Your task to perform on an android device: Open Google Image 0: 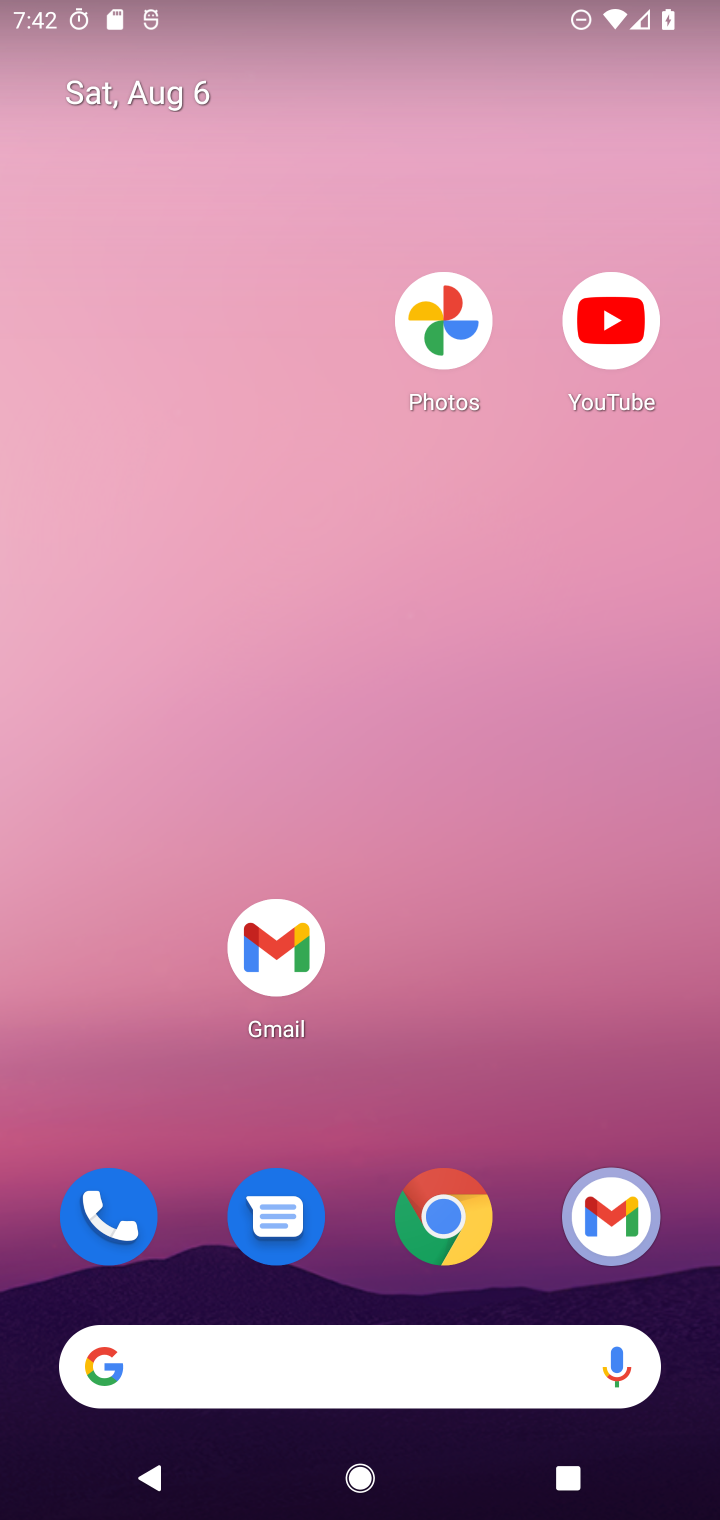
Step 0: drag from (543, 1258) to (585, 72)
Your task to perform on an android device: Open Google Image 1: 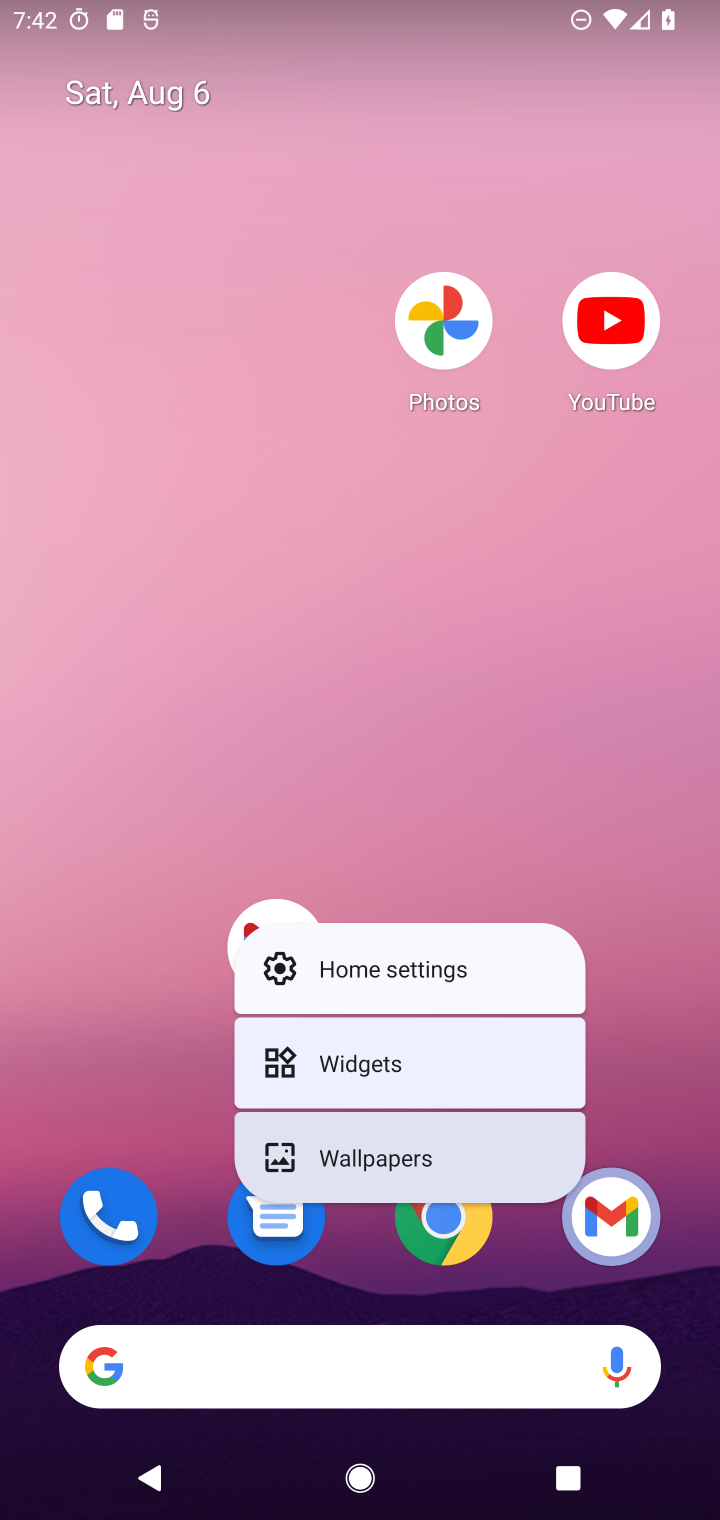
Step 1: click (459, 588)
Your task to perform on an android device: Open Google Image 2: 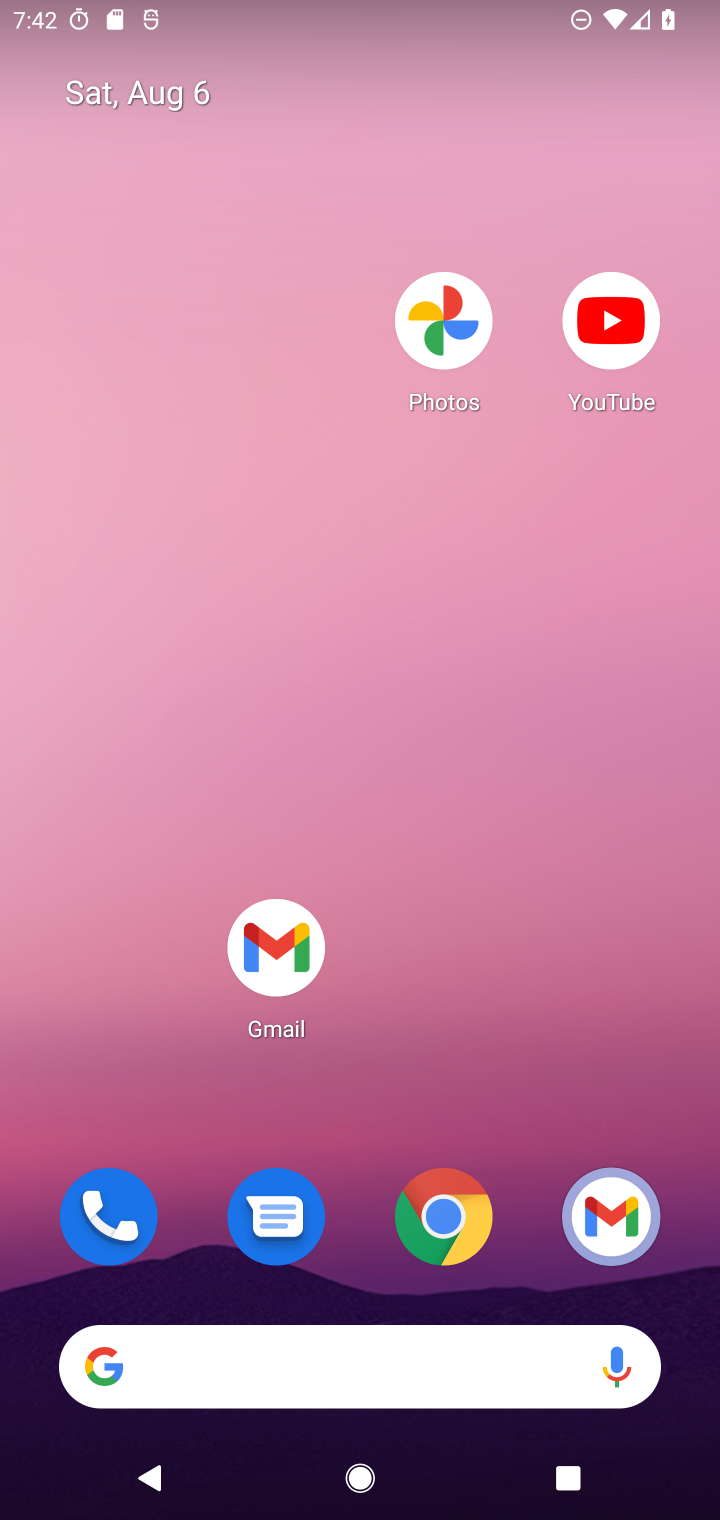
Step 2: drag from (606, 1067) to (550, 153)
Your task to perform on an android device: Open Google Image 3: 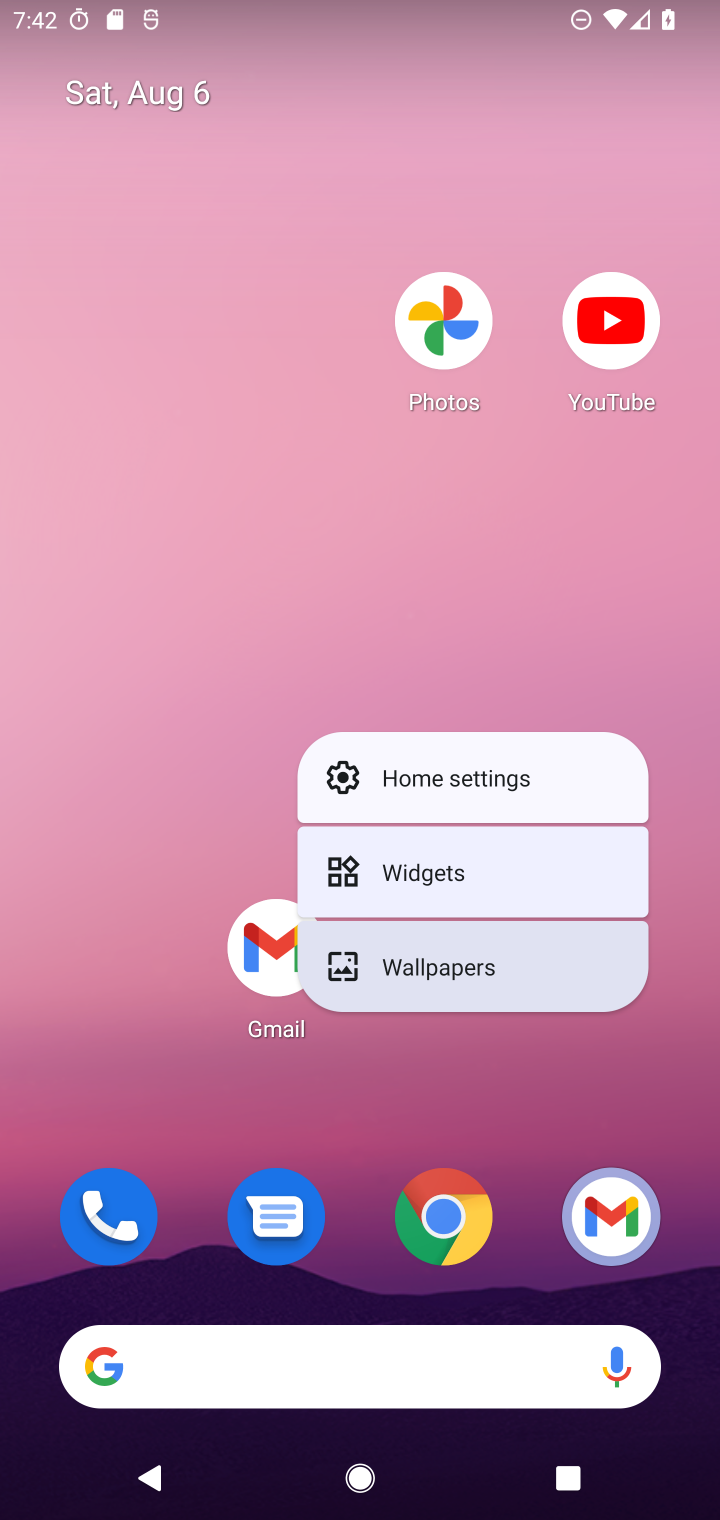
Step 3: click (149, 307)
Your task to perform on an android device: Open Google Image 4: 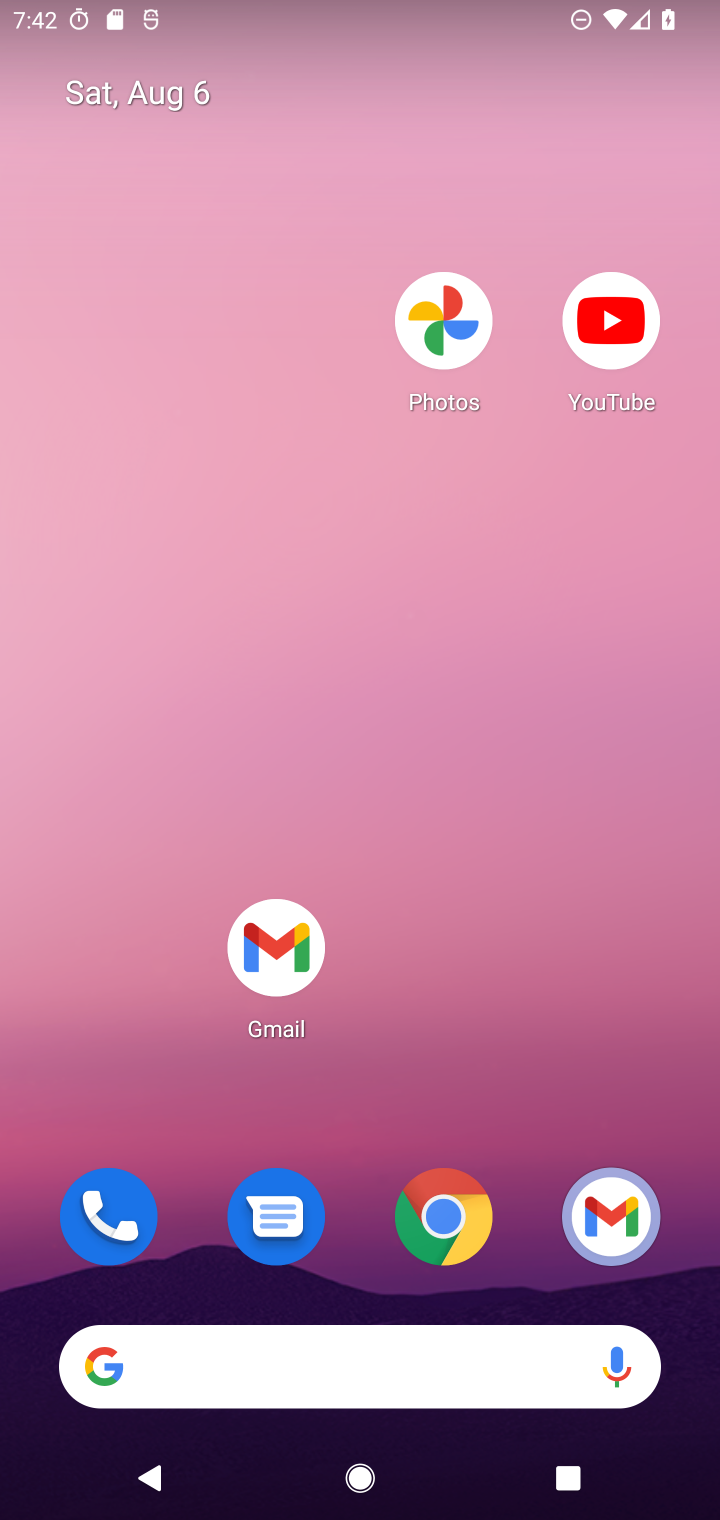
Step 4: drag from (513, 1296) to (584, 399)
Your task to perform on an android device: Open Google Image 5: 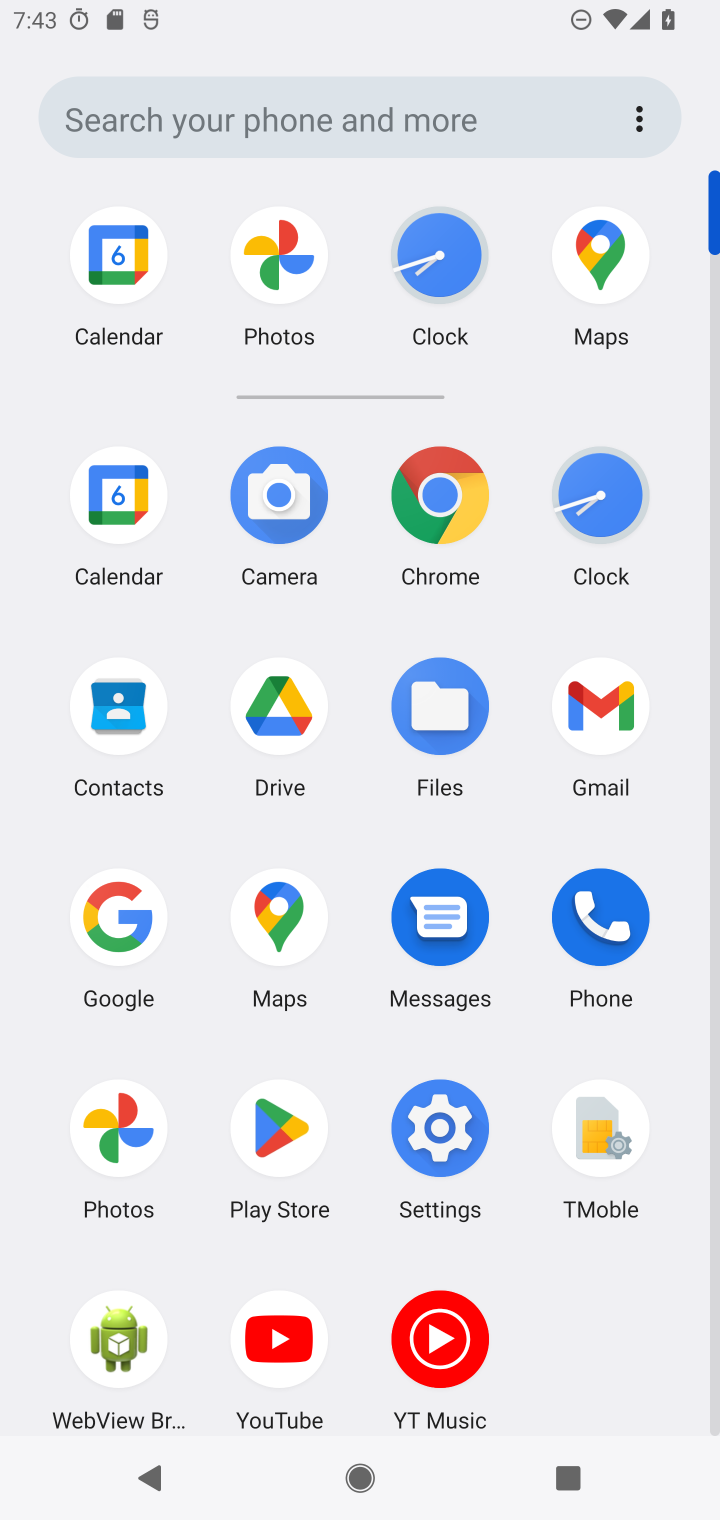
Step 5: click (110, 929)
Your task to perform on an android device: Open Google Image 6: 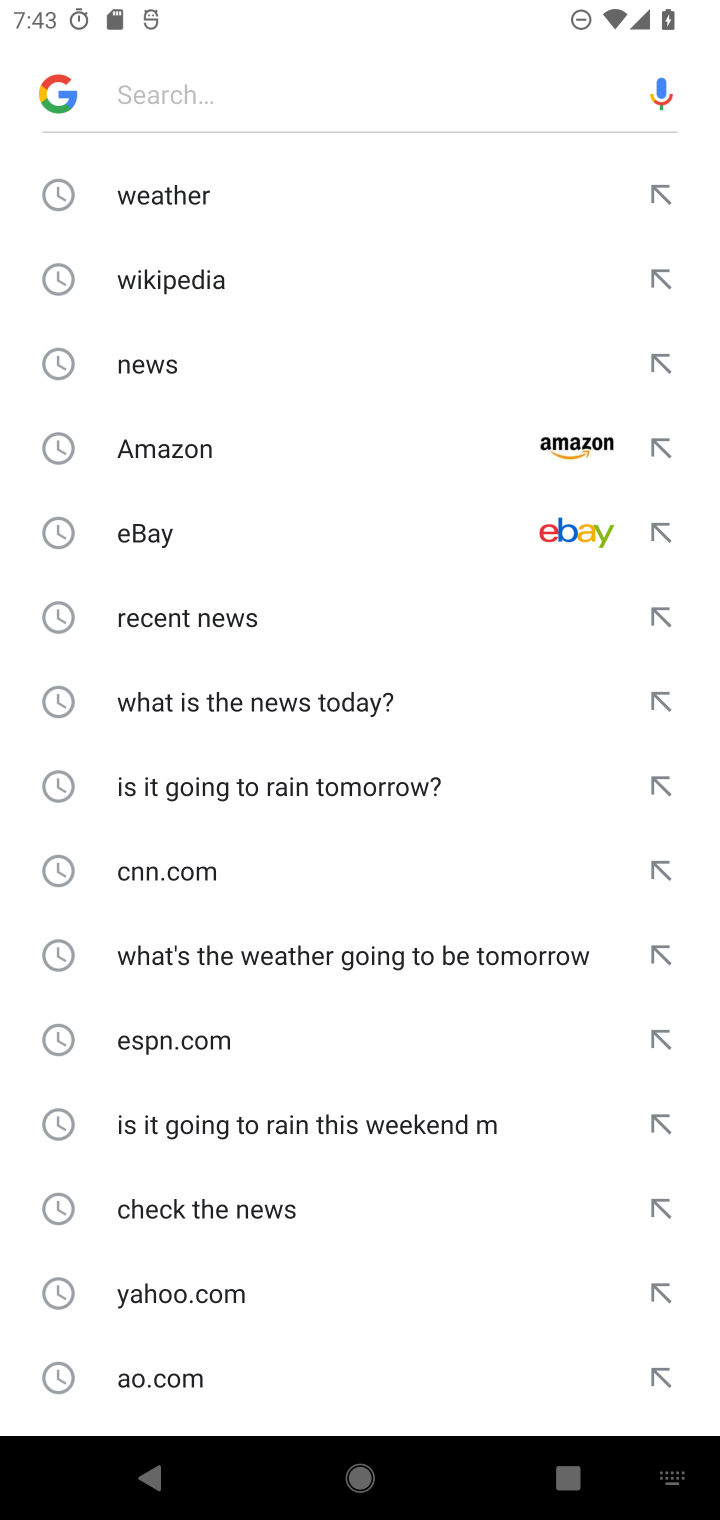
Step 6: task complete